Your task to perform on an android device: Go to Yahoo.com Image 0: 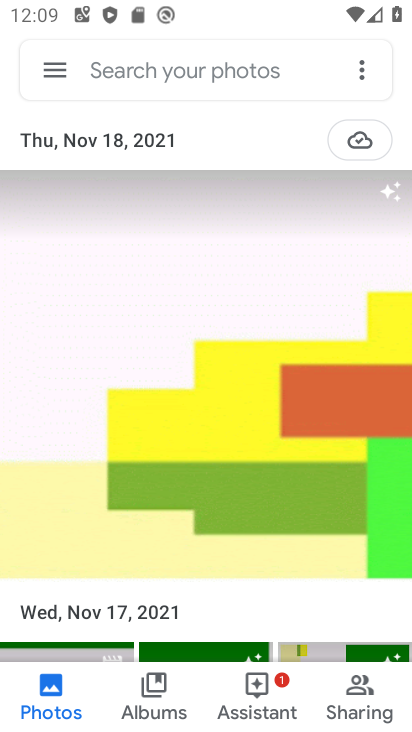
Step 0: press home button
Your task to perform on an android device: Go to Yahoo.com Image 1: 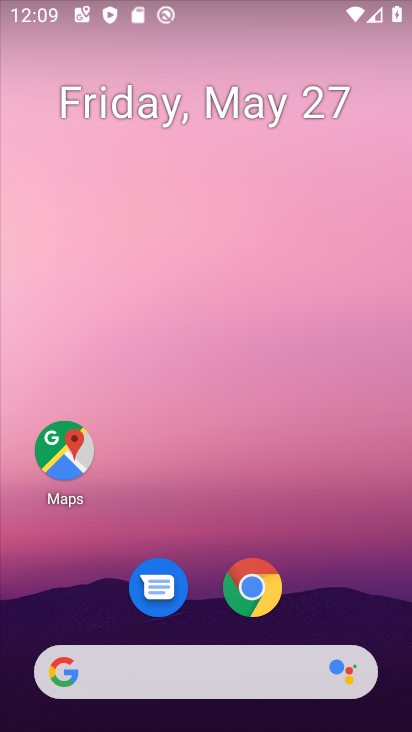
Step 1: click (261, 598)
Your task to perform on an android device: Go to Yahoo.com Image 2: 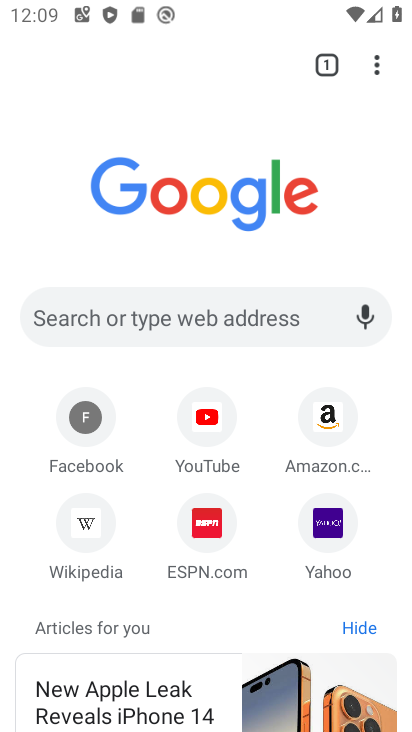
Step 2: click (328, 527)
Your task to perform on an android device: Go to Yahoo.com Image 3: 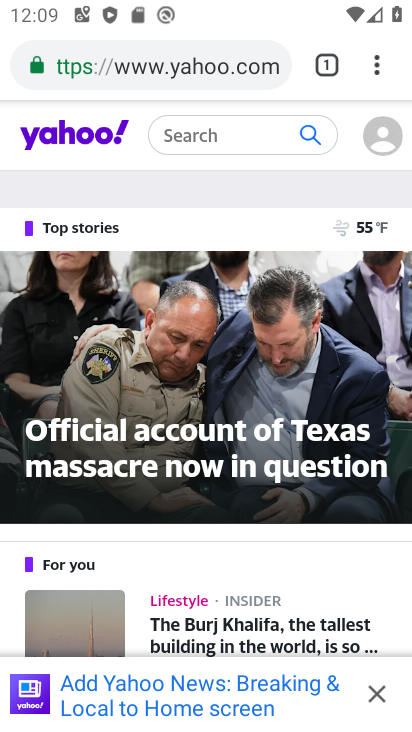
Step 3: task complete